Your task to perform on an android device: Show me the alarms in the clock app Image 0: 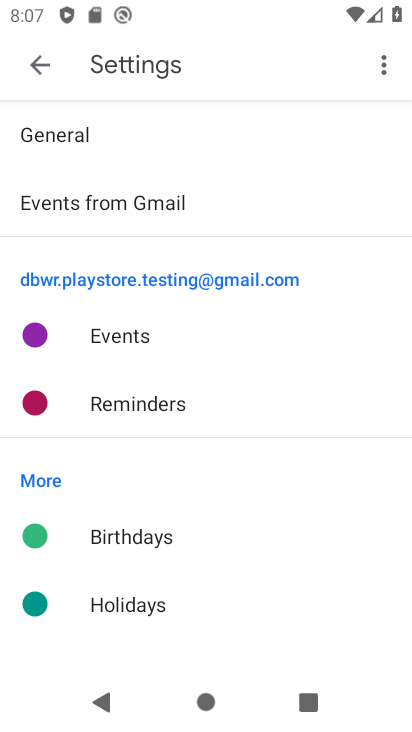
Step 0: press back button
Your task to perform on an android device: Show me the alarms in the clock app Image 1: 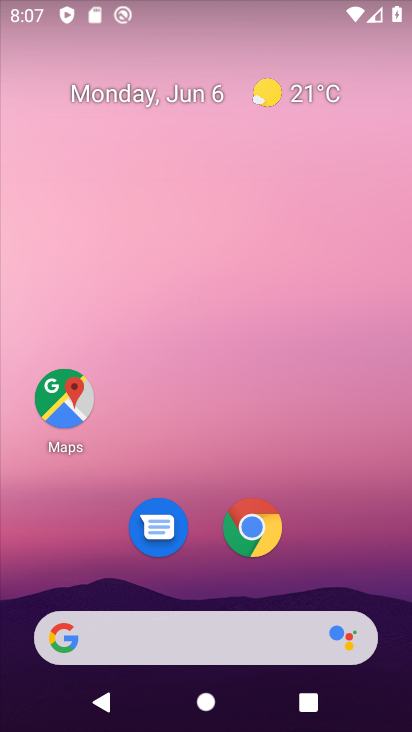
Step 1: drag from (178, 604) to (249, 62)
Your task to perform on an android device: Show me the alarms in the clock app Image 2: 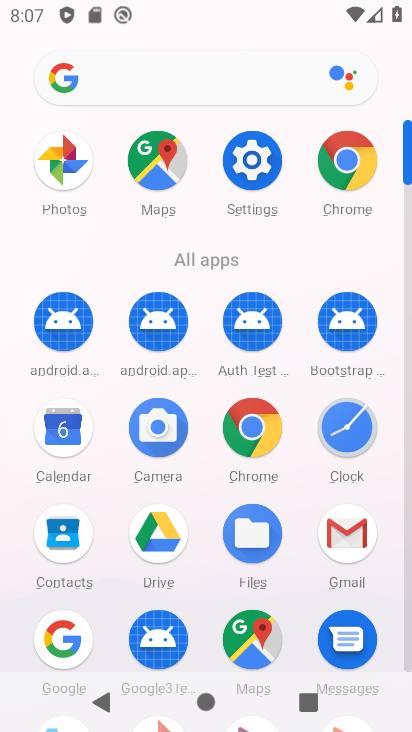
Step 2: click (356, 422)
Your task to perform on an android device: Show me the alarms in the clock app Image 3: 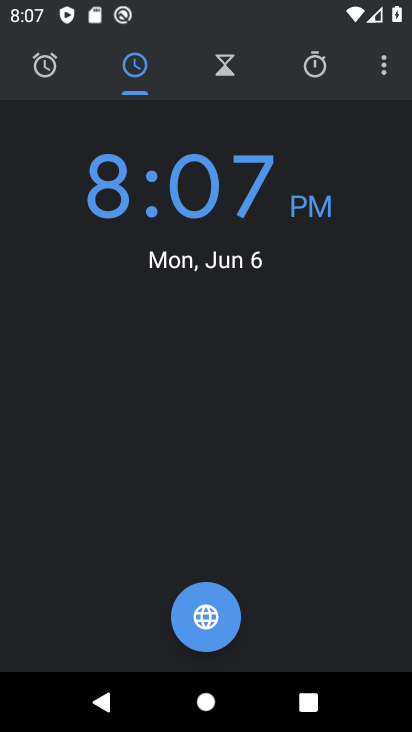
Step 3: click (48, 70)
Your task to perform on an android device: Show me the alarms in the clock app Image 4: 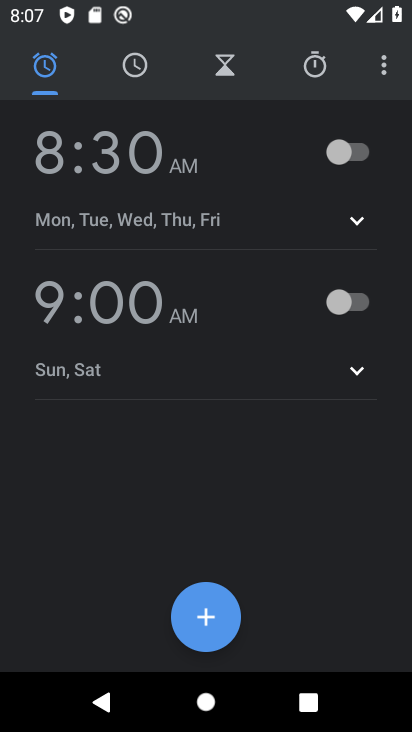
Step 4: task complete